Your task to perform on an android device: change notification settings in the gmail app Image 0: 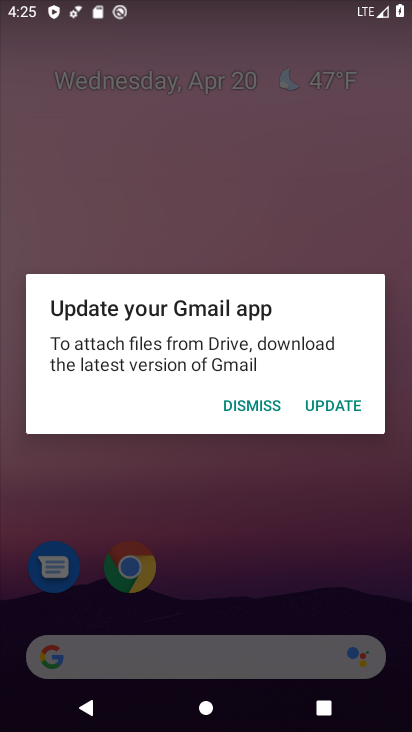
Step 0: press home button
Your task to perform on an android device: change notification settings in the gmail app Image 1: 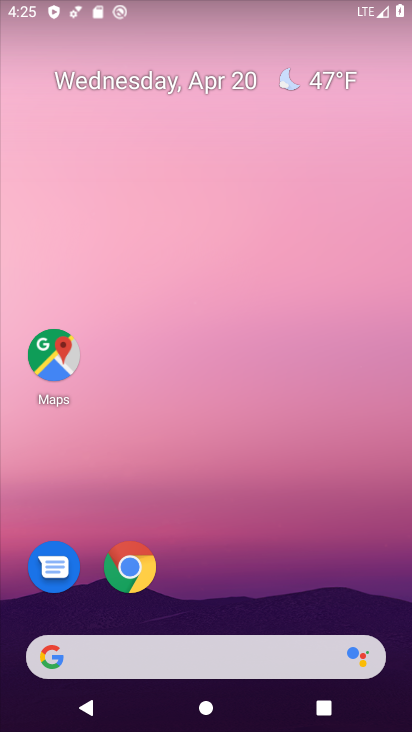
Step 1: drag from (292, 481) to (176, 2)
Your task to perform on an android device: change notification settings in the gmail app Image 2: 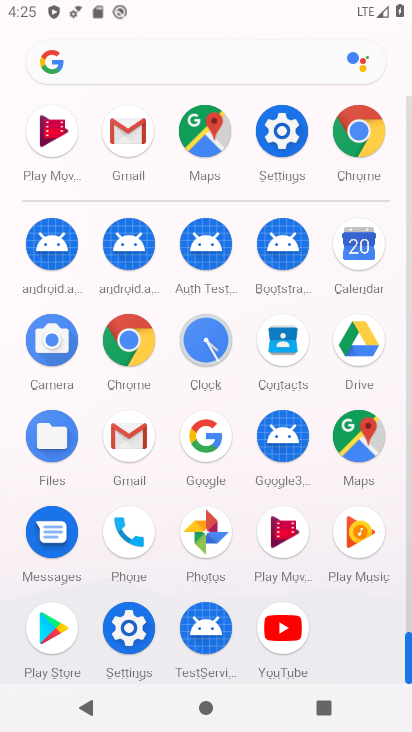
Step 2: click (129, 628)
Your task to perform on an android device: change notification settings in the gmail app Image 3: 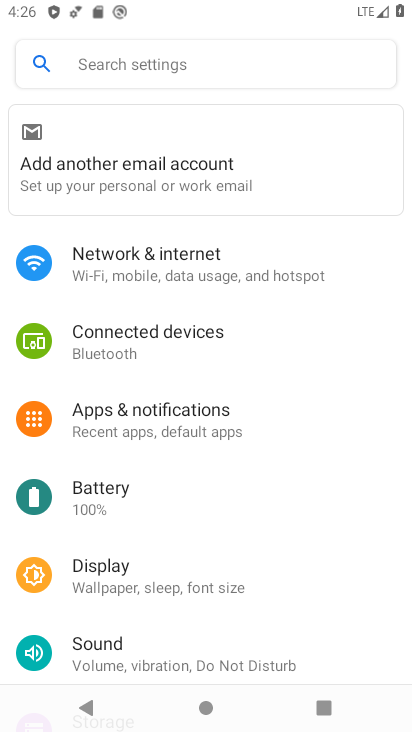
Step 3: click (157, 417)
Your task to perform on an android device: change notification settings in the gmail app Image 4: 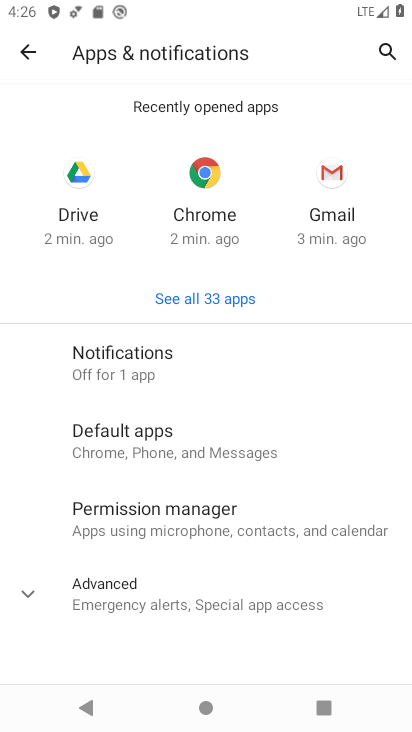
Step 4: click (193, 362)
Your task to perform on an android device: change notification settings in the gmail app Image 5: 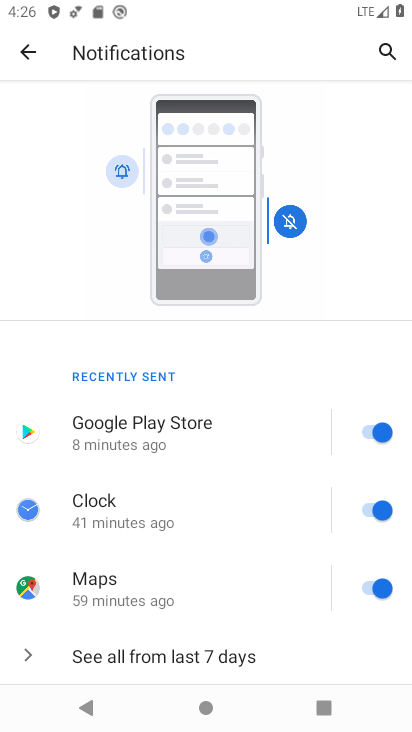
Step 5: drag from (235, 527) to (247, 125)
Your task to perform on an android device: change notification settings in the gmail app Image 6: 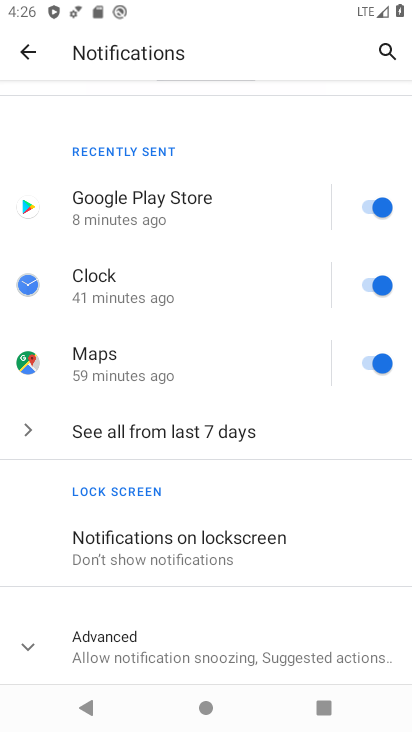
Step 6: drag from (242, 474) to (245, 203)
Your task to perform on an android device: change notification settings in the gmail app Image 7: 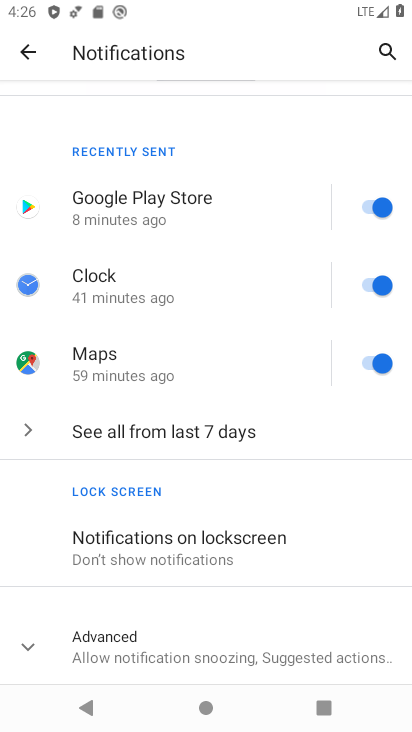
Step 7: click (31, 646)
Your task to perform on an android device: change notification settings in the gmail app Image 8: 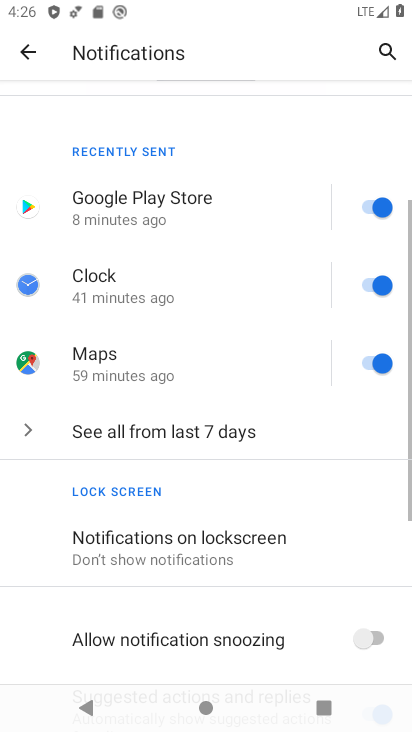
Step 8: drag from (259, 631) to (276, 244)
Your task to perform on an android device: change notification settings in the gmail app Image 9: 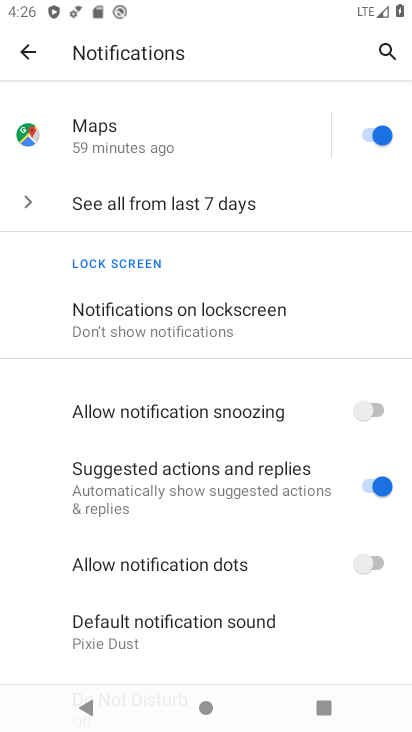
Step 9: drag from (162, 579) to (207, 206)
Your task to perform on an android device: change notification settings in the gmail app Image 10: 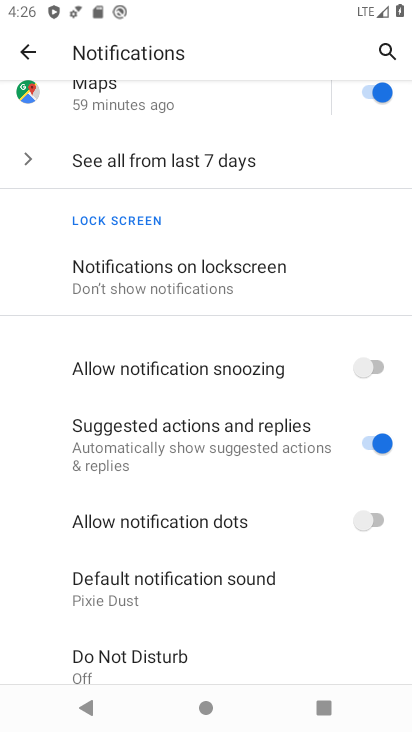
Step 10: drag from (310, 222) to (250, 584)
Your task to perform on an android device: change notification settings in the gmail app Image 11: 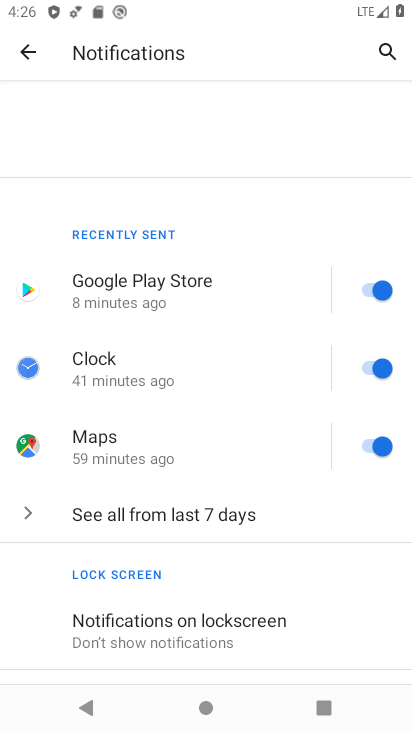
Step 11: drag from (201, 255) to (202, 567)
Your task to perform on an android device: change notification settings in the gmail app Image 12: 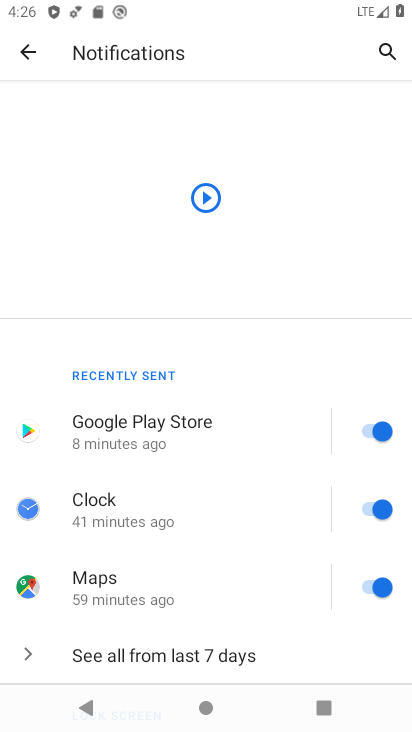
Step 12: drag from (245, 533) to (273, 135)
Your task to perform on an android device: change notification settings in the gmail app Image 13: 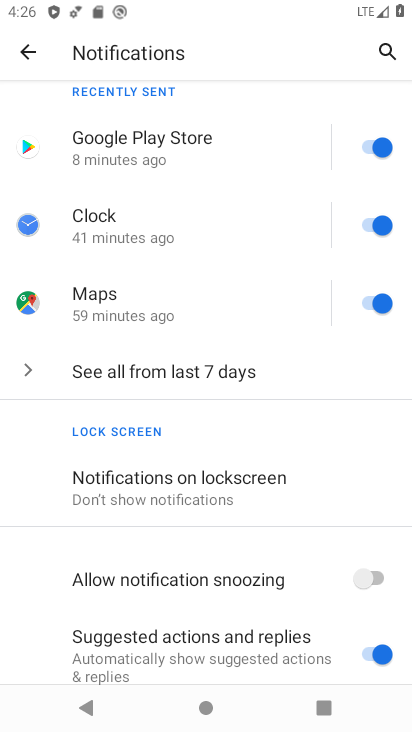
Step 13: drag from (255, 538) to (264, 191)
Your task to perform on an android device: change notification settings in the gmail app Image 14: 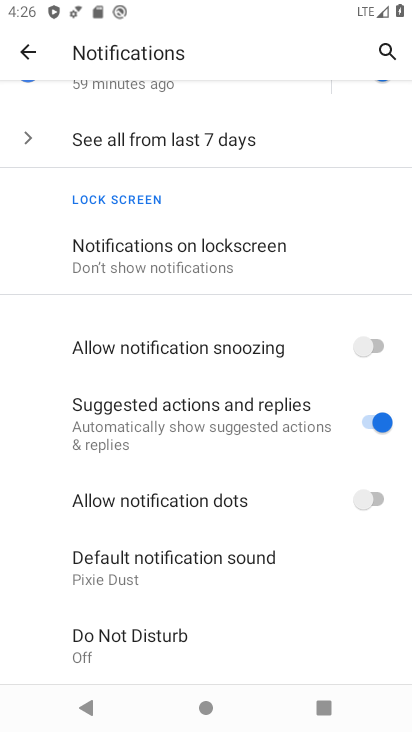
Step 14: drag from (238, 593) to (179, 288)
Your task to perform on an android device: change notification settings in the gmail app Image 15: 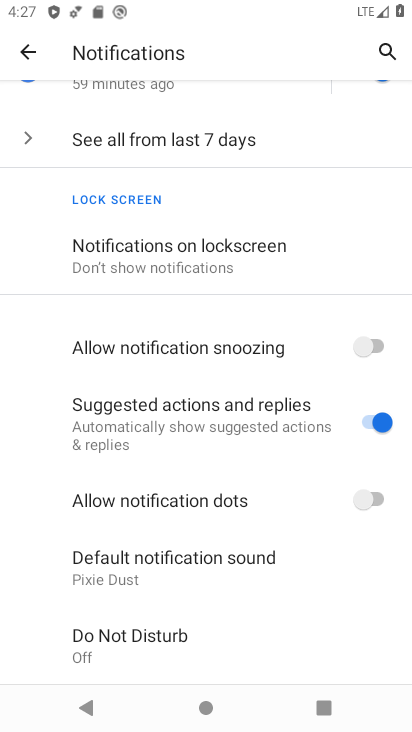
Step 15: drag from (212, 111) to (198, 495)
Your task to perform on an android device: change notification settings in the gmail app Image 16: 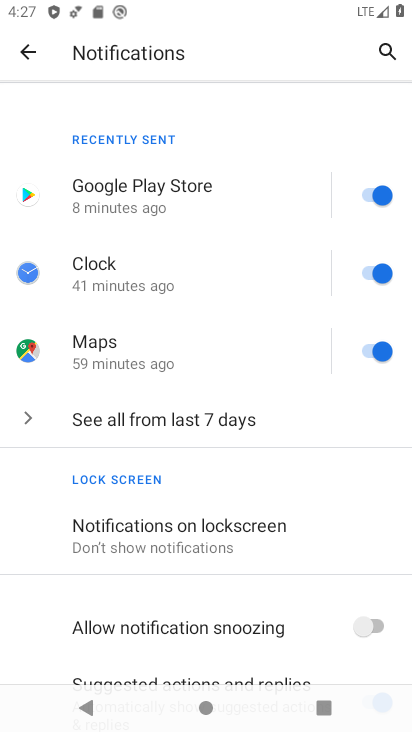
Step 16: drag from (219, 221) to (190, 621)
Your task to perform on an android device: change notification settings in the gmail app Image 17: 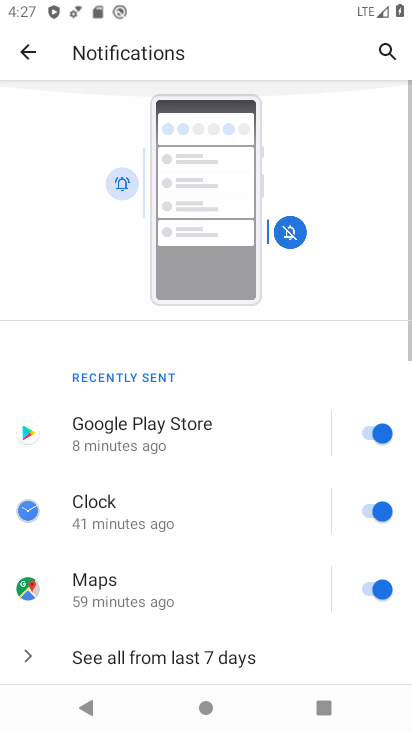
Step 17: drag from (232, 188) to (218, 605)
Your task to perform on an android device: change notification settings in the gmail app Image 18: 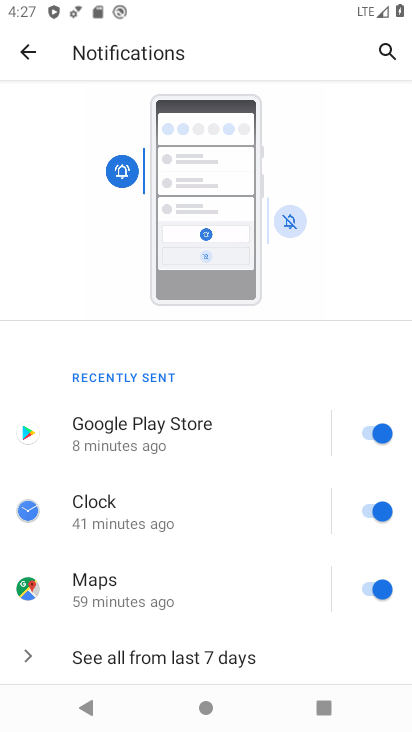
Step 18: drag from (190, 513) to (187, 119)
Your task to perform on an android device: change notification settings in the gmail app Image 19: 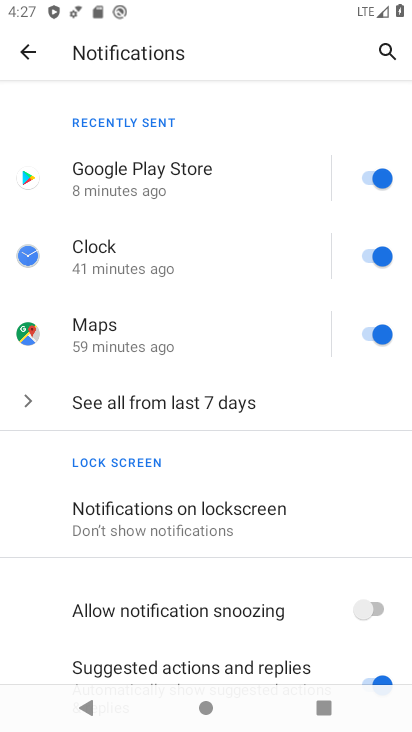
Step 19: drag from (223, 616) to (235, 177)
Your task to perform on an android device: change notification settings in the gmail app Image 20: 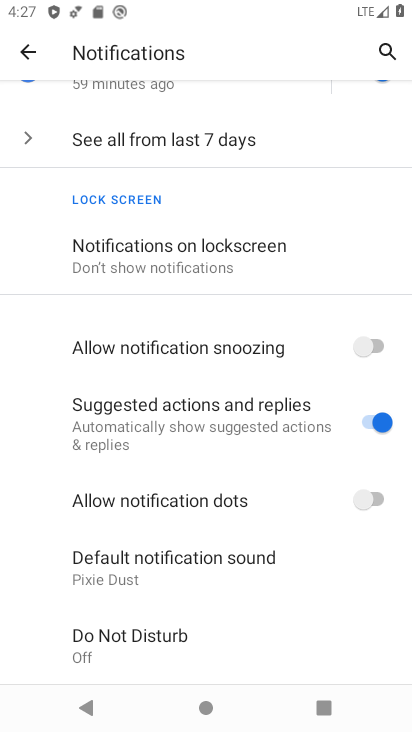
Step 20: click (177, 137)
Your task to perform on an android device: change notification settings in the gmail app Image 21: 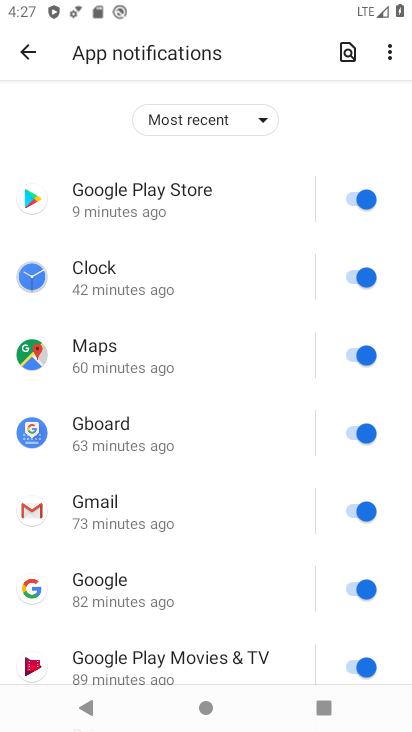
Step 21: click (115, 486)
Your task to perform on an android device: change notification settings in the gmail app Image 22: 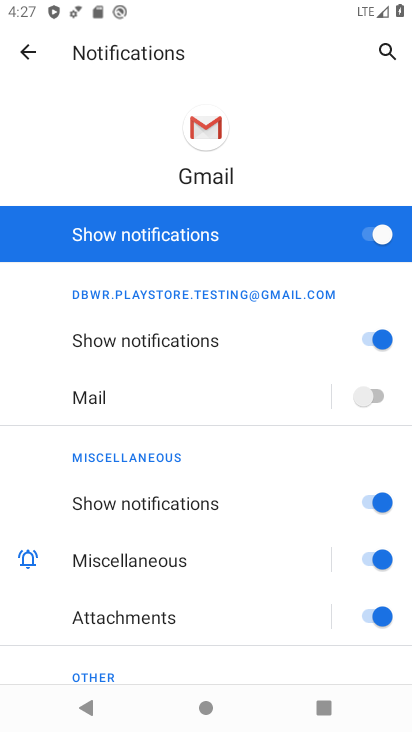
Step 22: click (366, 234)
Your task to perform on an android device: change notification settings in the gmail app Image 23: 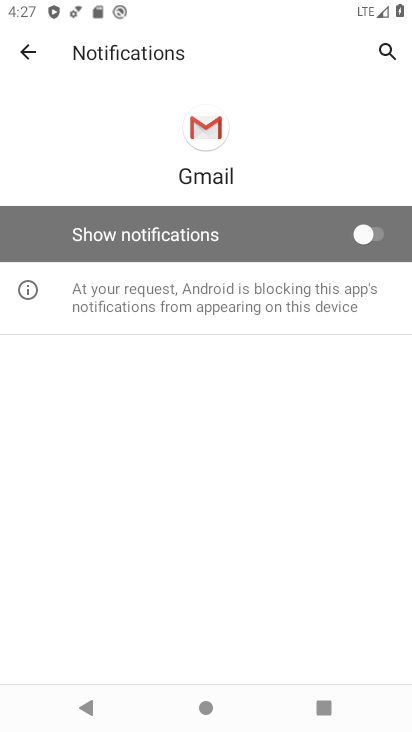
Step 23: task complete